Your task to perform on an android device: snooze an email in the gmail app Image 0: 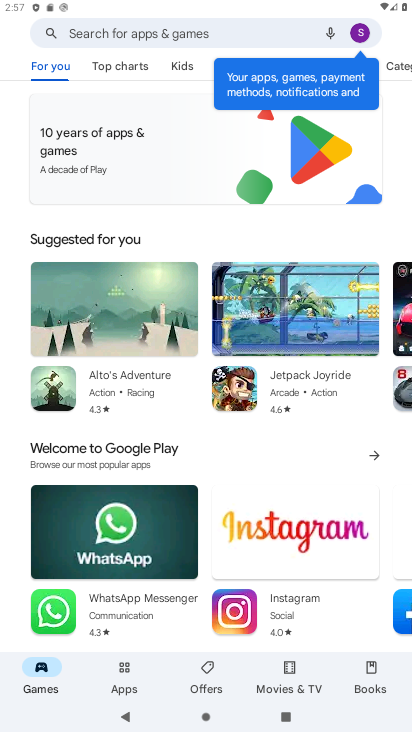
Step 0: press home button
Your task to perform on an android device: snooze an email in the gmail app Image 1: 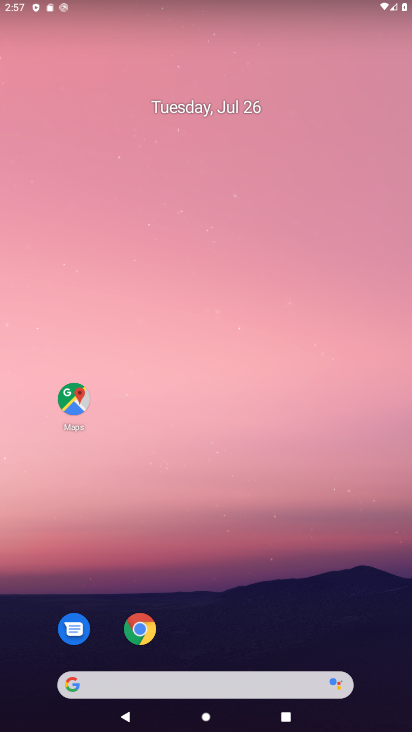
Step 1: click (154, 461)
Your task to perform on an android device: snooze an email in the gmail app Image 2: 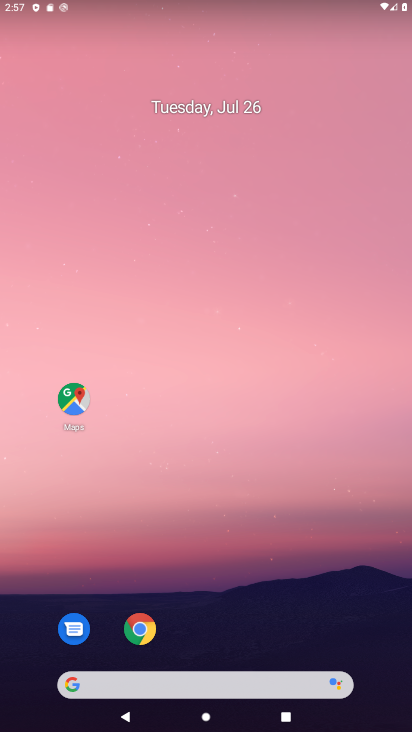
Step 2: drag from (293, 656) to (317, 14)
Your task to perform on an android device: snooze an email in the gmail app Image 3: 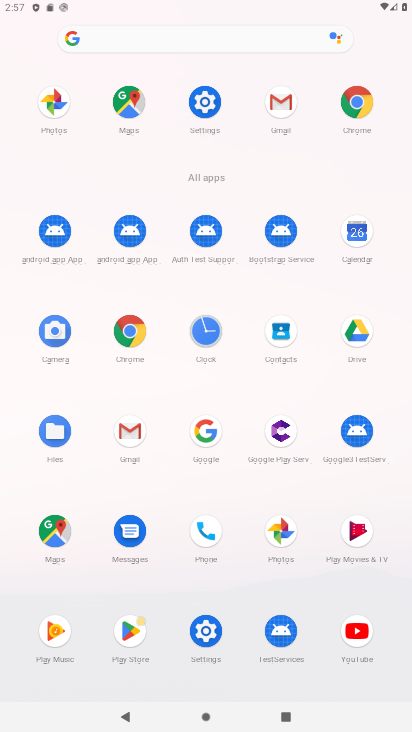
Step 3: click (123, 431)
Your task to perform on an android device: snooze an email in the gmail app Image 4: 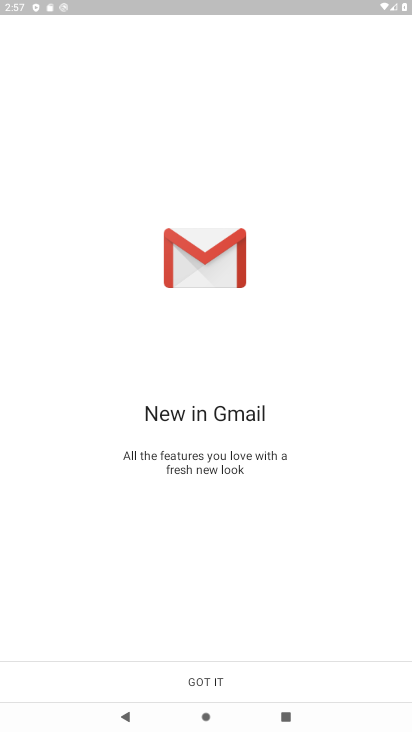
Step 4: click (230, 683)
Your task to perform on an android device: snooze an email in the gmail app Image 5: 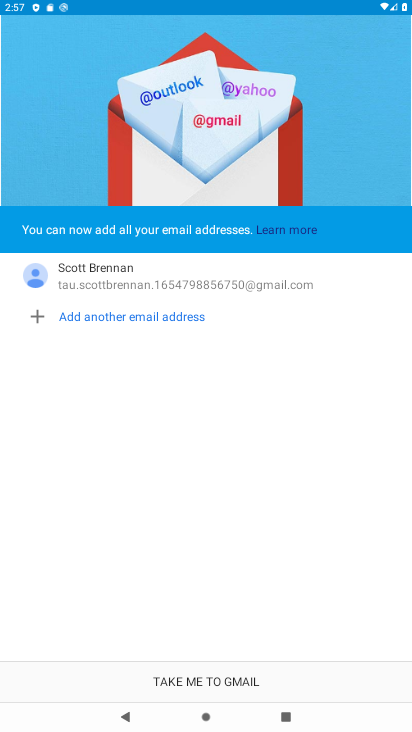
Step 5: click (175, 679)
Your task to perform on an android device: snooze an email in the gmail app Image 6: 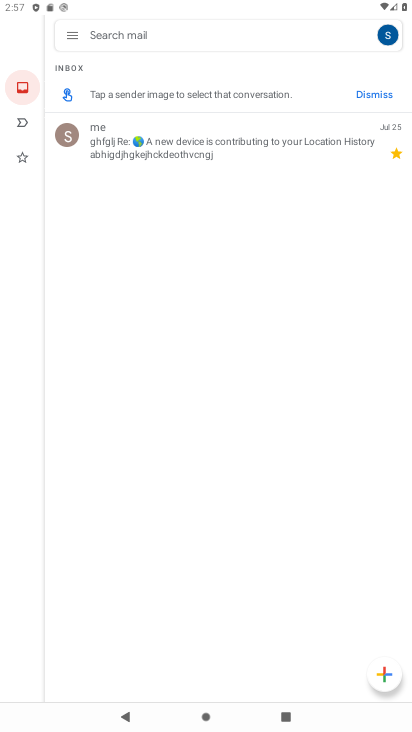
Step 6: click (62, 29)
Your task to perform on an android device: snooze an email in the gmail app Image 7: 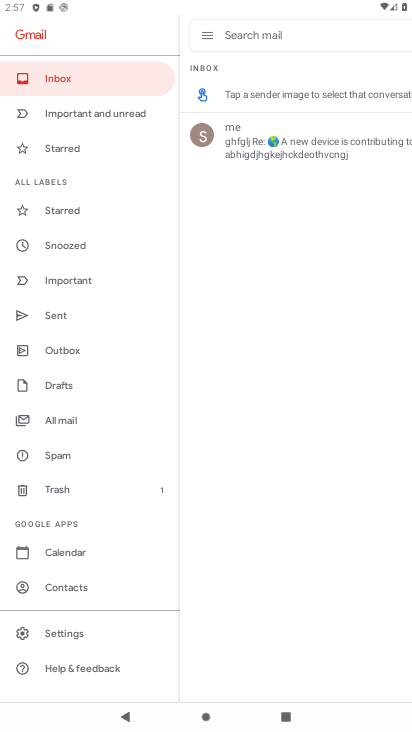
Step 7: task complete